Your task to perform on an android device: Open Google Chrome and click the shortcut for Amazon.com Image 0: 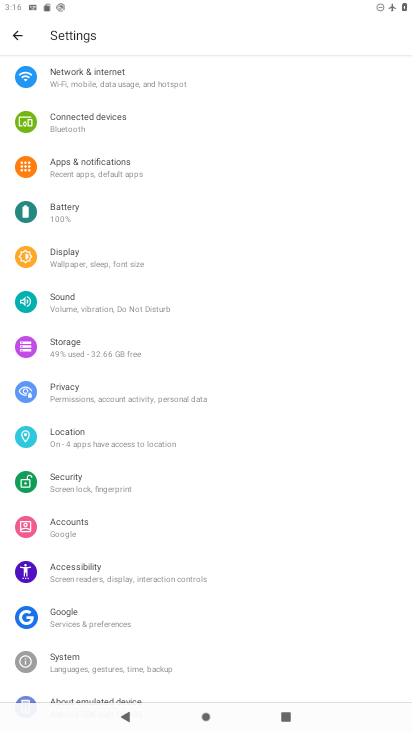
Step 0: press home button
Your task to perform on an android device: Open Google Chrome and click the shortcut for Amazon.com Image 1: 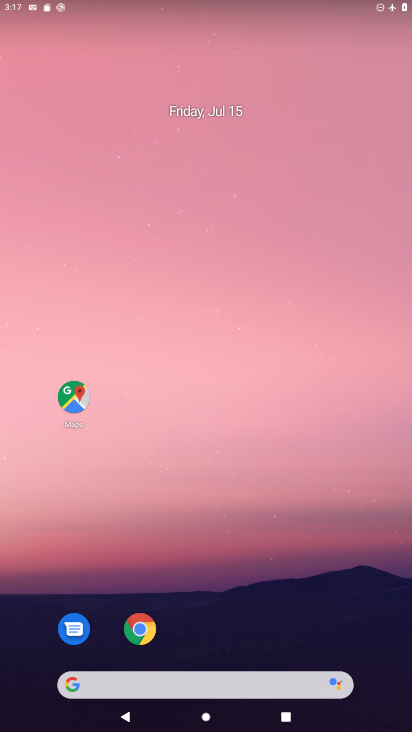
Step 1: drag from (296, 578) to (30, 11)
Your task to perform on an android device: Open Google Chrome and click the shortcut for Amazon.com Image 2: 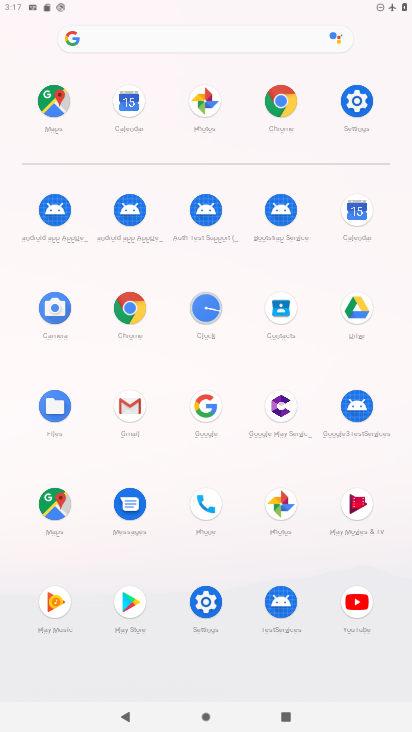
Step 2: click (122, 316)
Your task to perform on an android device: Open Google Chrome and click the shortcut for Amazon.com Image 3: 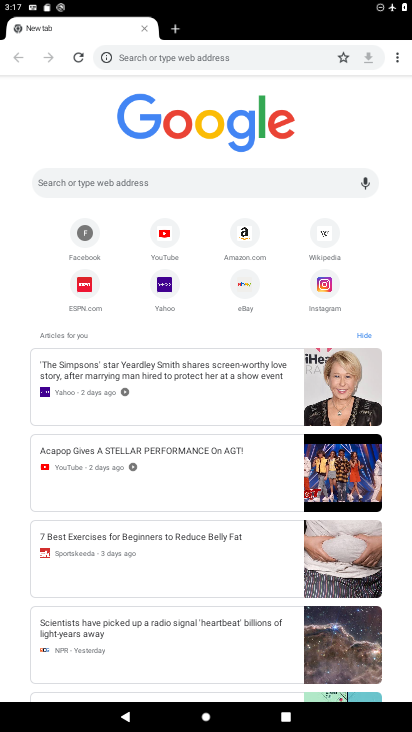
Step 3: click (238, 239)
Your task to perform on an android device: Open Google Chrome and click the shortcut for Amazon.com Image 4: 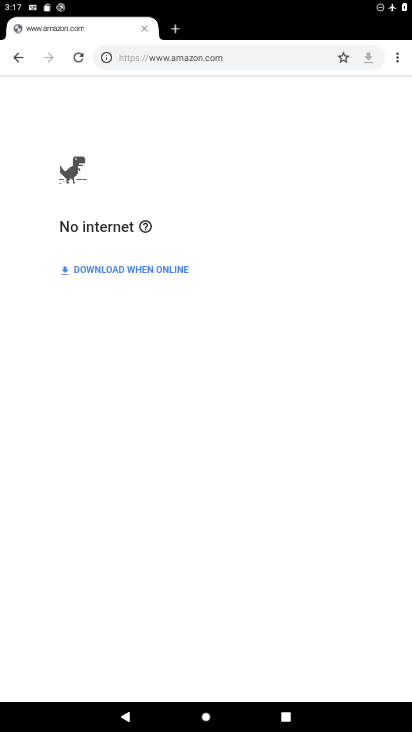
Step 4: task complete